Your task to perform on an android device: create a new album in the google photos Image 0: 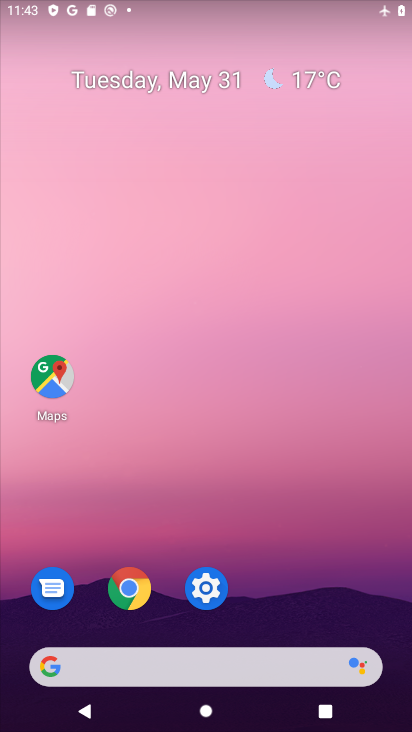
Step 0: press home button
Your task to perform on an android device: create a new album in the google photos Image 1: 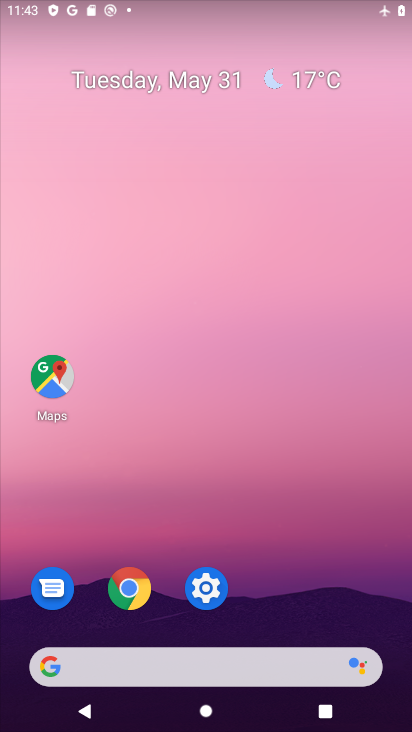
Step 1: drag from (197, 552) to (217, 124)
Your task to perform on an android device: create a new album in the google photos Image 2: 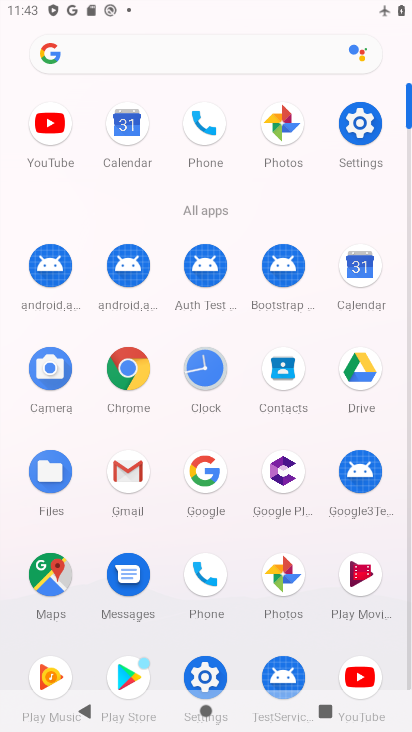
Step 2: click (282, 565)
Your task to perform on an android device: create a new album in the google photos Image 3: 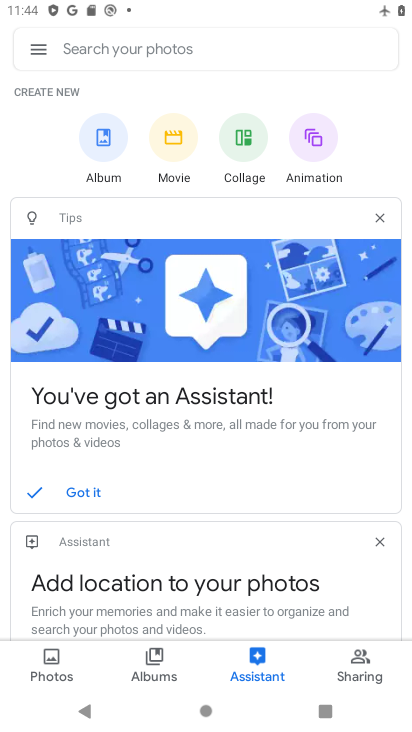
Step 3: click (57, 652)
Your task to perform on an android device: create a new album in the google photos Image 4: 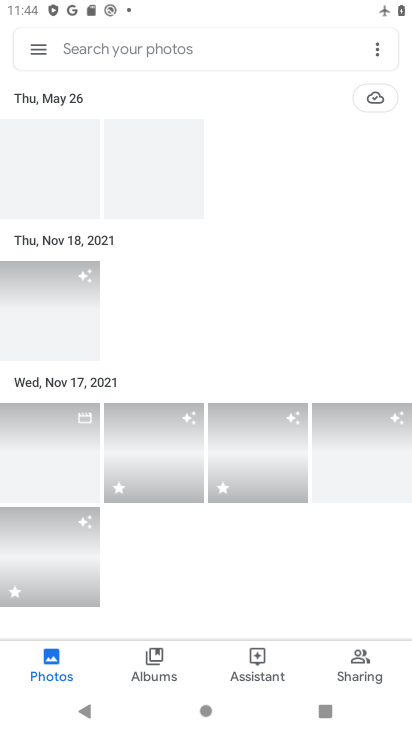
Step 4: click (207, 486)
Your task to perform on an android device: create a new album in the google photos Image 5: 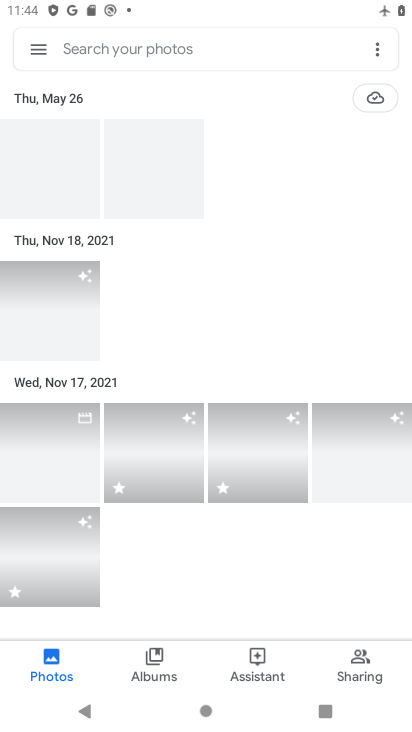
Step 5: click (182, 464)
Your task to perform on an android device: create a new album in the google photos Image 6: 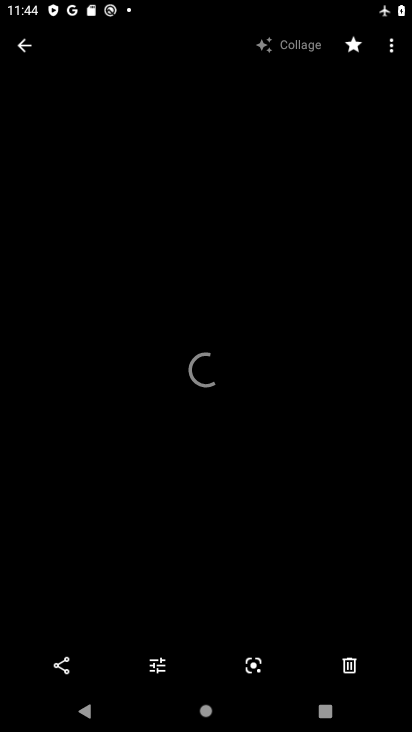
Step 6: click (389, 53)
Your task to perform on an android device: create a new album in the google photos Image 7: 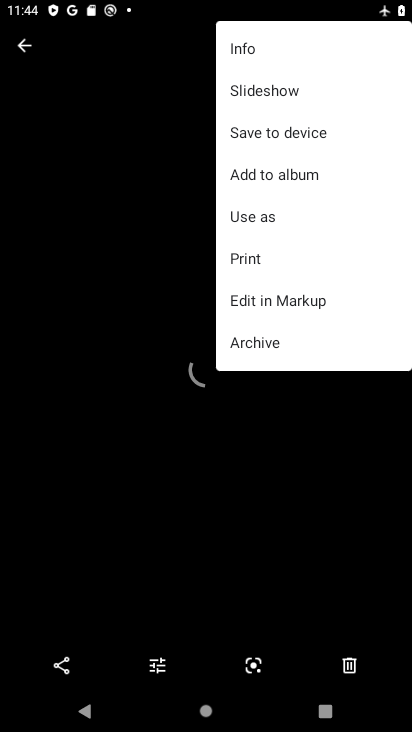
Step 7: click (264, 169)
Your task to perform on an android device: create a new album in the google photos Image 8: 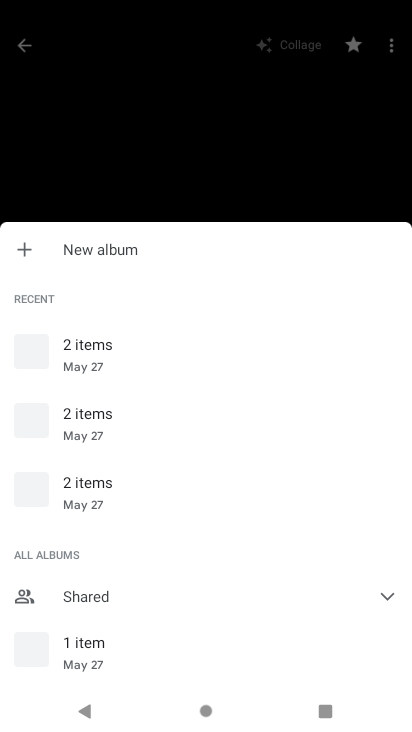
Step 8: click (72, 253)
Your task to perform on an android device: create a new album in the google photos Image 9: 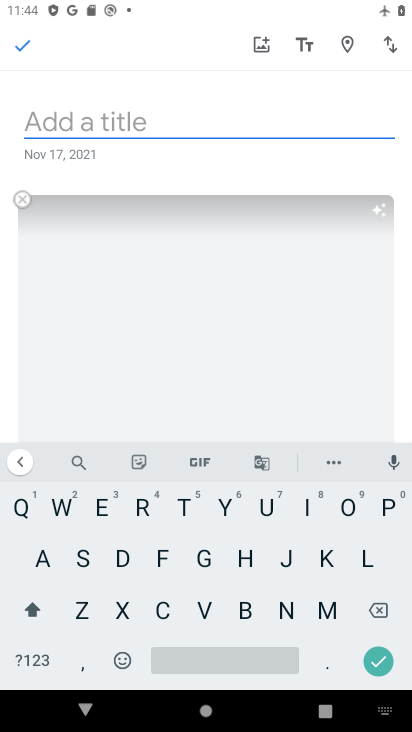
Step 9: click (103, 517)
Your task to perform on an android device: create a new album in the google photos Image 10: 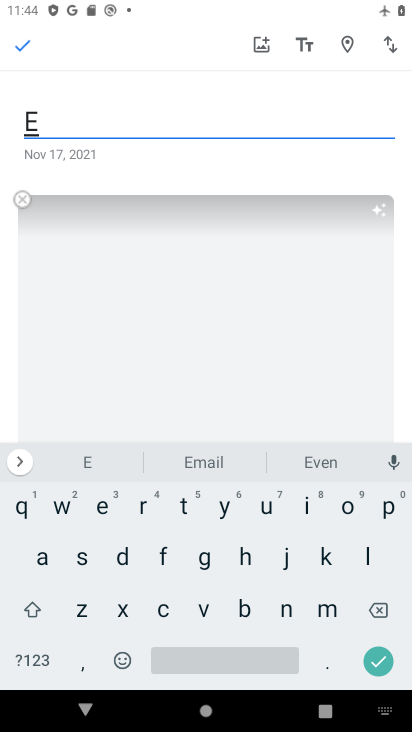
Step 10: click (123, 569)
Your task to perform on an android device: create a new album in the google photos Image 11: 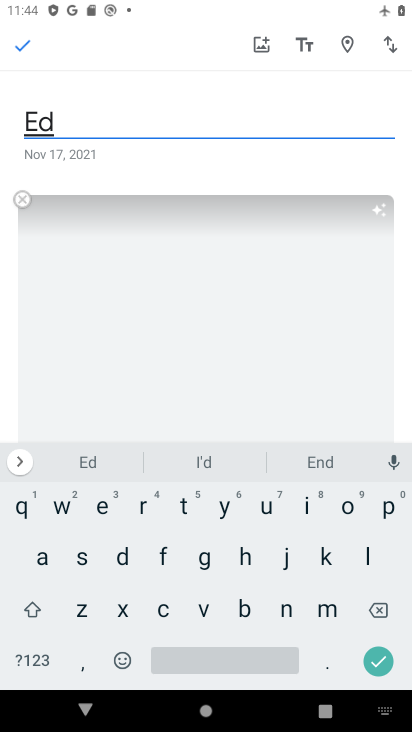
Step 11: click (18, 35)
Your task to perform on an android device: create a new album in the google photos Image 12: 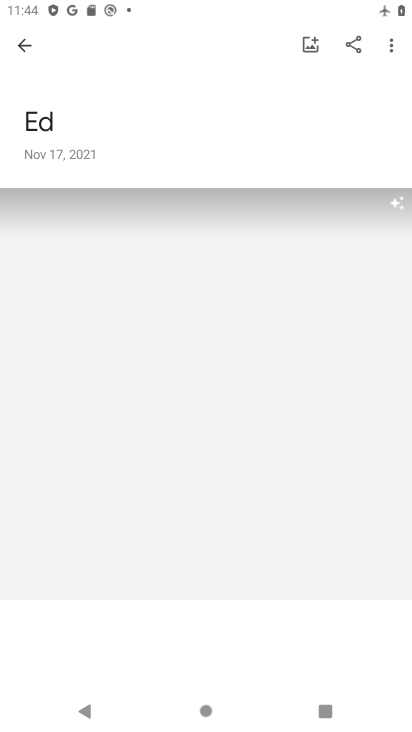
Step 12: task complete